Your task to perform on an android device: Search for seafood restaurants on Google Maps Image 0: 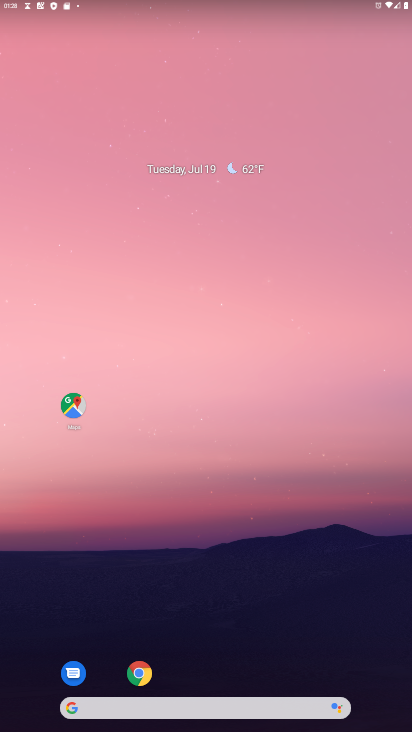
Step 0: drag from (303, 655) to (239, 191)
Your task to perform on an android device: Search for seafood restaurants on Google Maps Image 1: 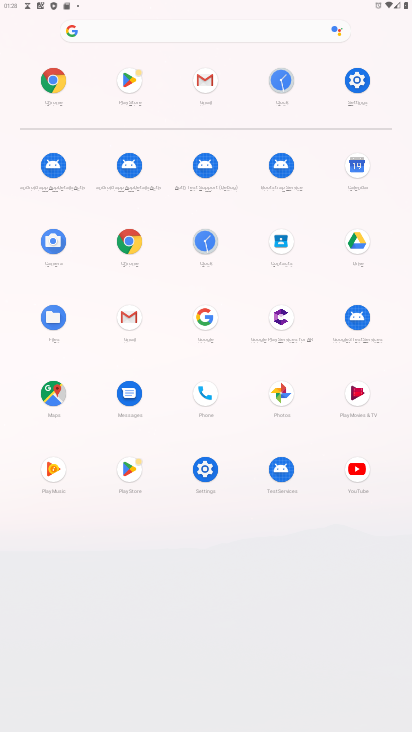
Step 1: click (56, 396)
Your task to perform on an android device: Search for seafood restaurants on Google Maps Image 2: 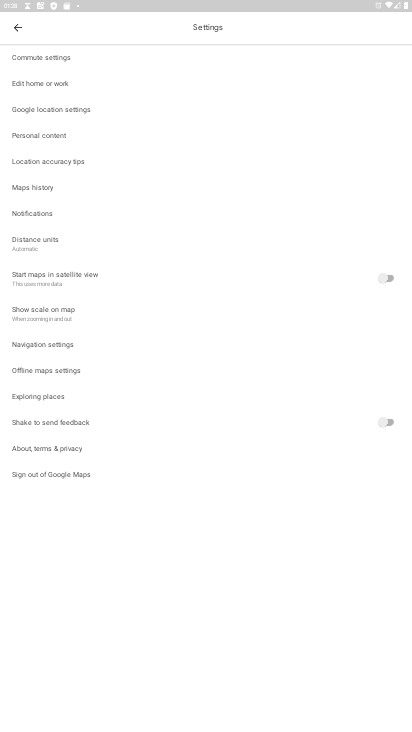
Step 2: click (26, 29)
Your task to perform on an android device: Search for seafood restaurants on Google Maps Image 3: 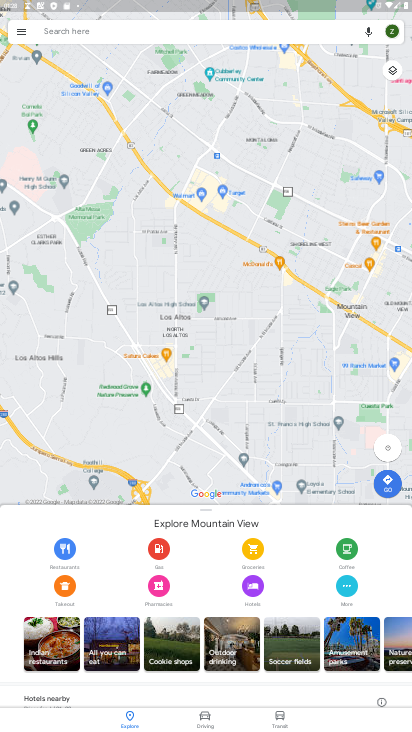
Step 3: click (171, 22)
Your task to perform on an android device: Search for seafood restaurants on Google Maps Image 4: 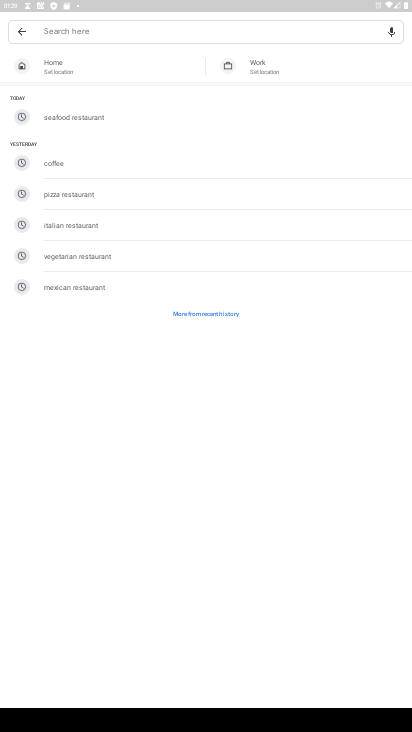
Step 4: click (87, 113)
Your task to perform on an android device: Search for seafood restaurants on Google Maps Image 5: 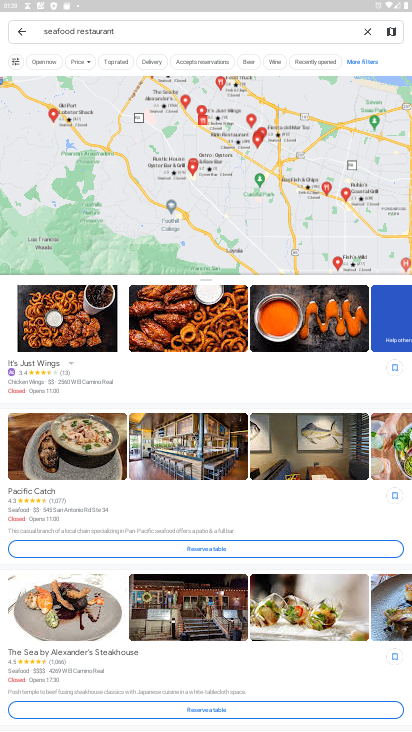
Step 5: task complete